Your task to perform on an android device: check android version Image 0: 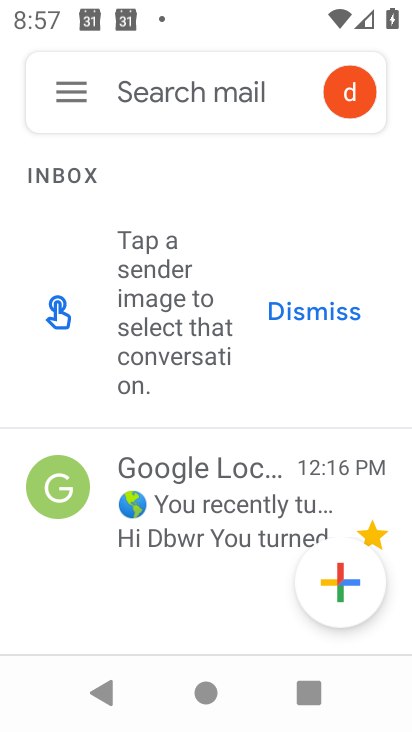
Step 0: press home button
Your task to perform on an android device: check android version Image 1: 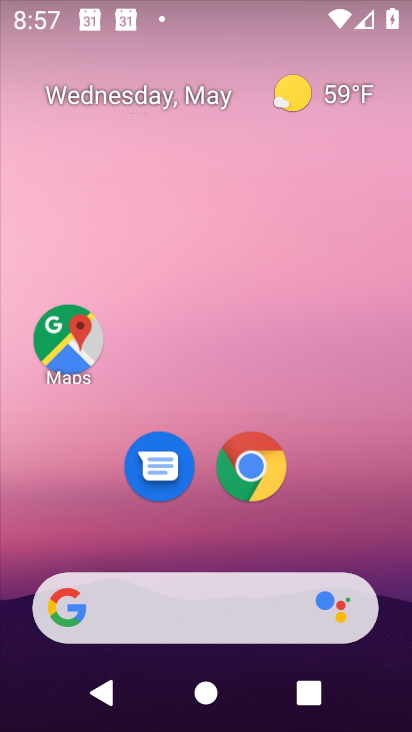
Step 1: drag from (329, 554) to (378, 213)
Your task to perform on an android device: check android version Image 2: 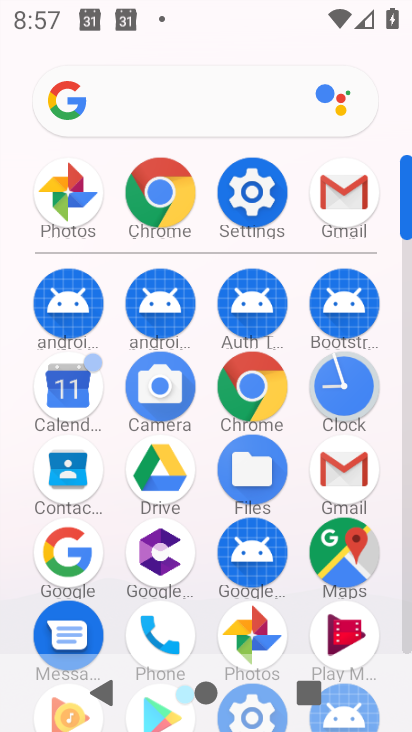
Step 2: click (261, 193)
Your task to perform on an android device: check android version Image 3: 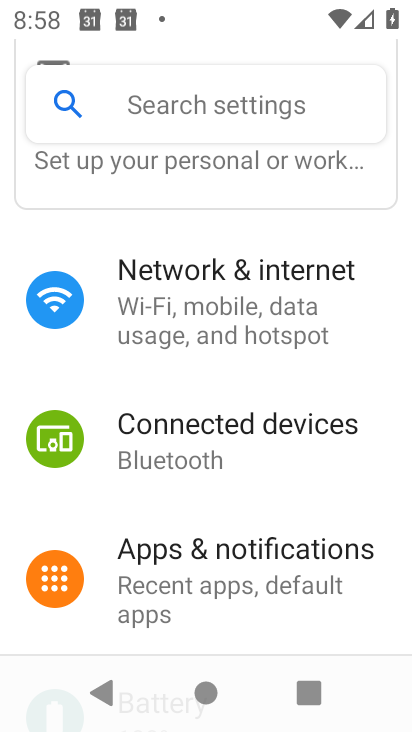
Step 3: drag from (226, 607) to (286, 59)
Your task to perform on an android device: check android version Image 4: 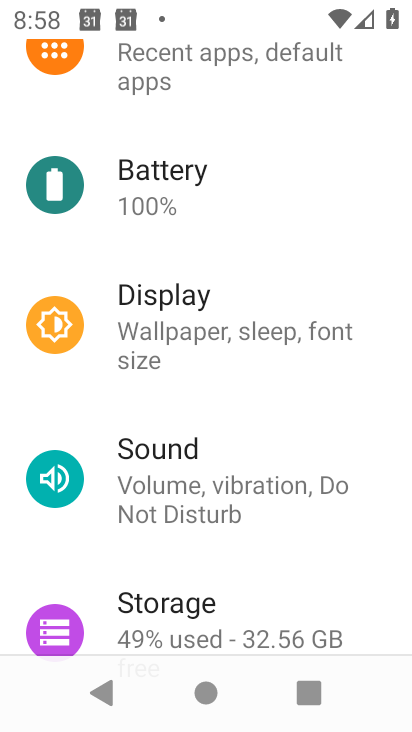
Step 4: drag from (229, 618) to (309, 126)
Your task to perform on an android device: check android version Image 5: 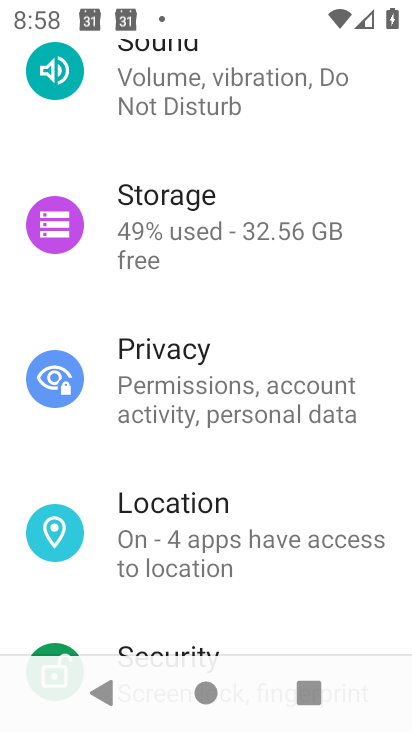
Step 5: drag from (218, 603) to (307, 177)
Your task to perform on an android device: check android version Image 6: 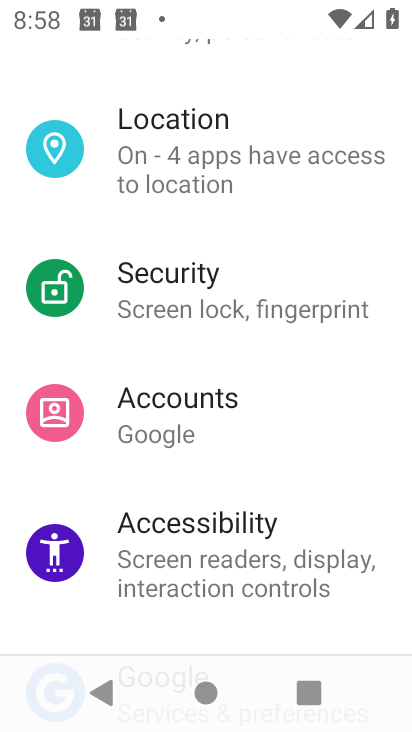
Step 6: drag from (241, 583) to (348, 84)
Your task to perform on an android device: check android version Image 7: 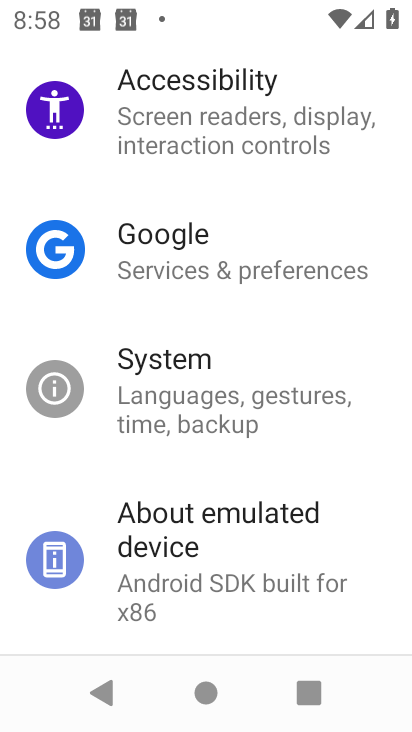
Step 7: click (195, 576)
Your task to perform on an android device: check android version Image 8: 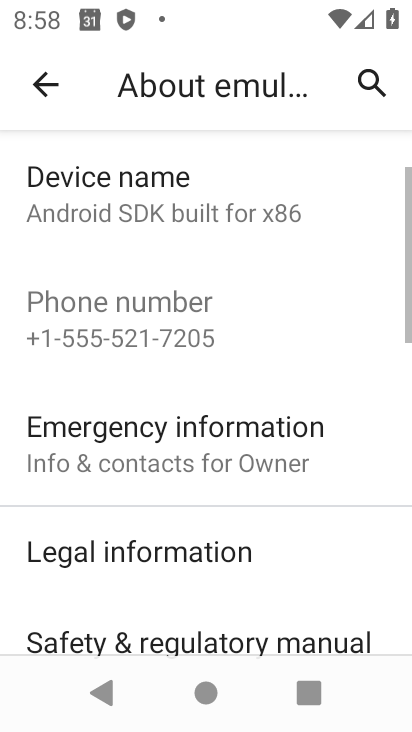
Step 8: drag from (198, 581) to (251, 144)
Your task to perform on an android device: check android version Image 9: 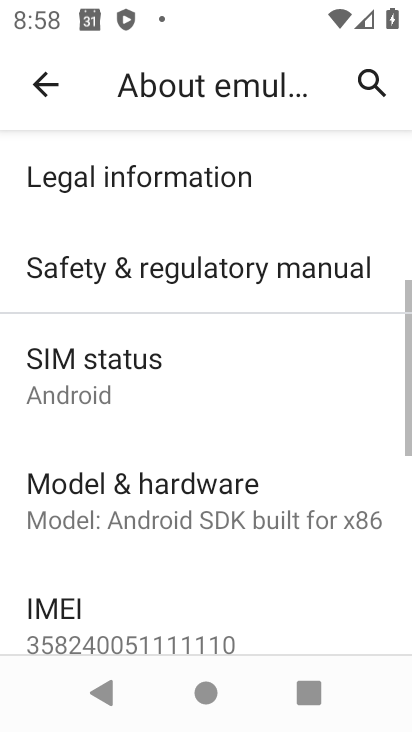
Step 9: drag from (116, 581) to (262, 197)
Your task to perform on an android device: check android version Image 10: 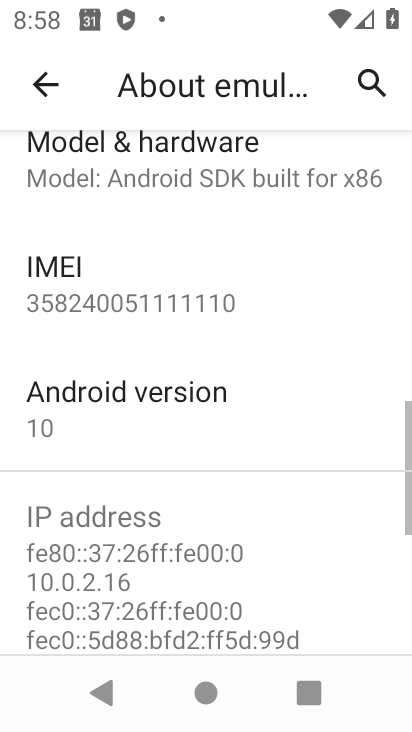
Step 10: click (166, 428)
Your task to perform on an android device: check android version Image 11: 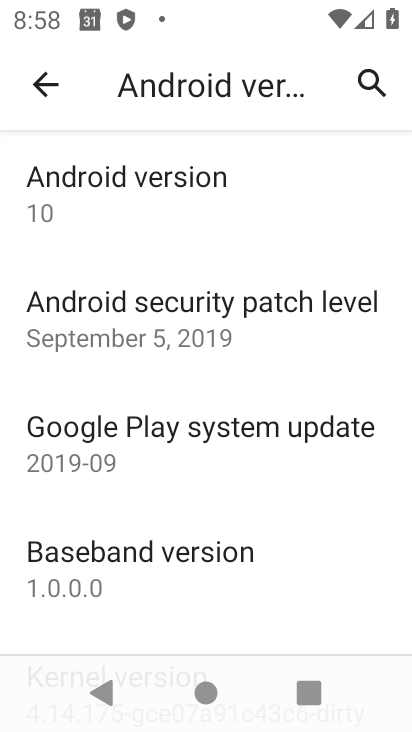
Step 11: task complete